Your task to perform on an android device: Search for logitech g pro on walmart.com, select the first entry, and add it to the cart. Image 0: 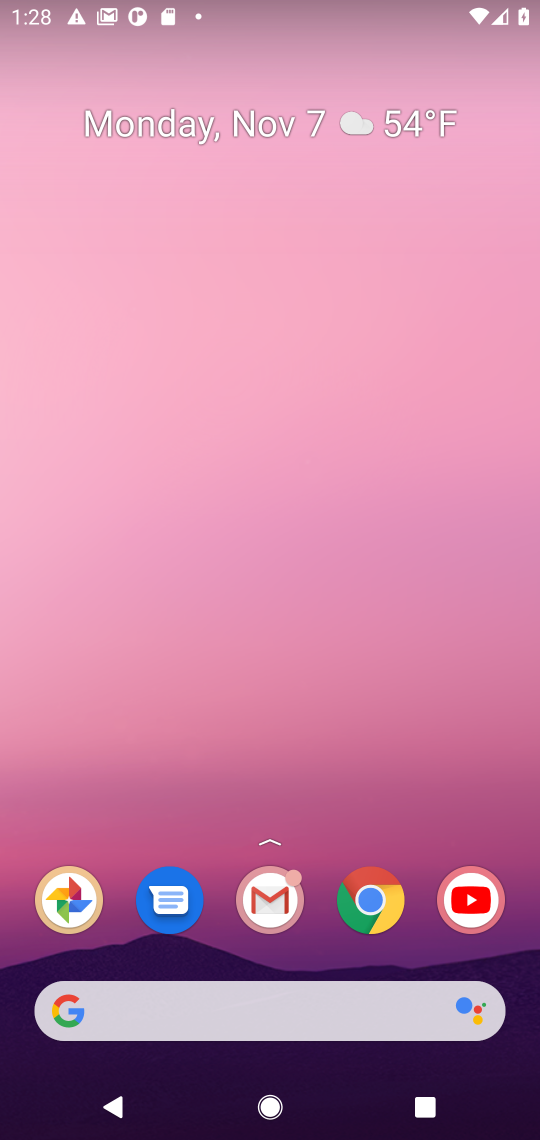
Step 0: task complete